Your task to perform on an android device: turn off location history Image 0: 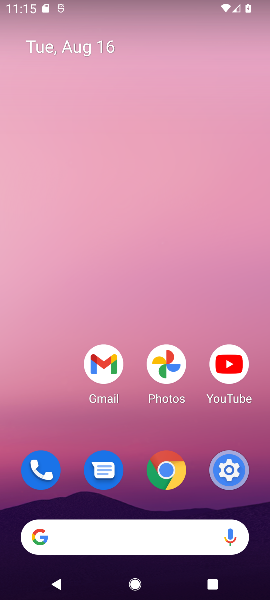
Step 0: click (229, 467)
Your task to perform on an android device: turn off location history Image 1: 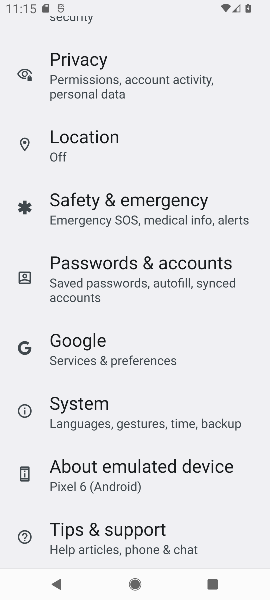
Step 1: click (126, 143)
Your task to perform on an android device: turn off location history Image 2: 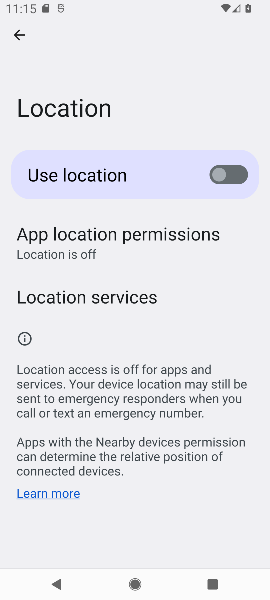
Step 2: click (113, 295)
Your task to perform on an android device: turn off location history Image 3: 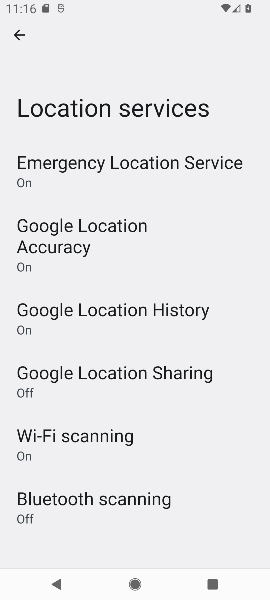
Step 3: click (116, 313)
Your task to perform on an android device: turn off location history Image 4: 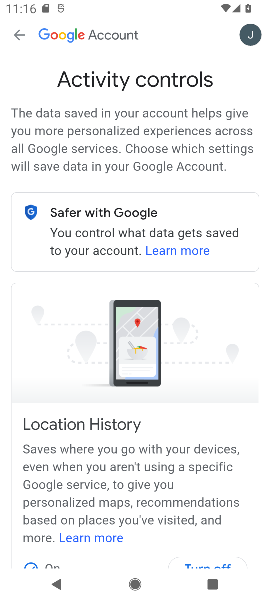
Step 4: drag from (88, 377) to (82, 225)
Your task to perform on an android device: turn off location history Image 5: 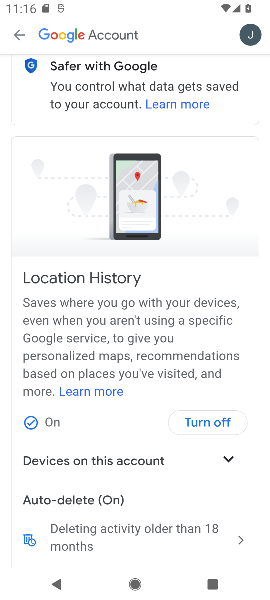
Step 5: click (220, 423)
Your task to perform on an android device: turn off location history Image 6: 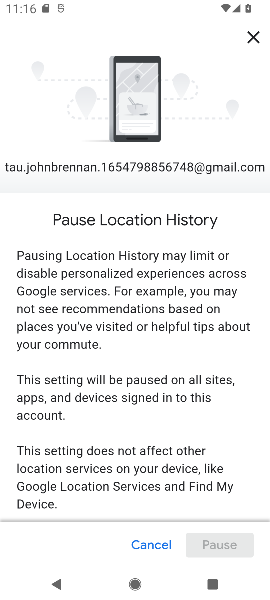
Step 6: drag from (162, 472) to (161, 31)
Your task to perform on an android device: turn off location history Image 7: 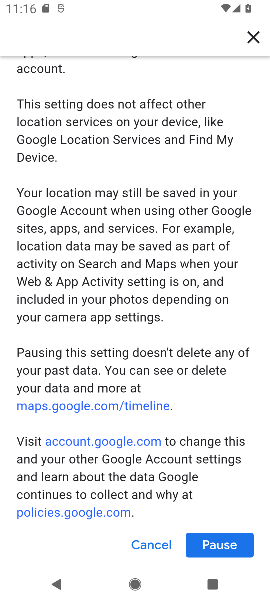
Step 7: click (234, 543)
Your task to perform on an android device: turn off location history Image 8: 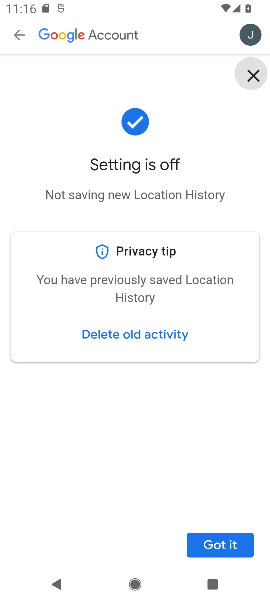
Step 8: task complete